Your task to perform on an android device: Open the phone app and click the voicemail tab. Image 0: 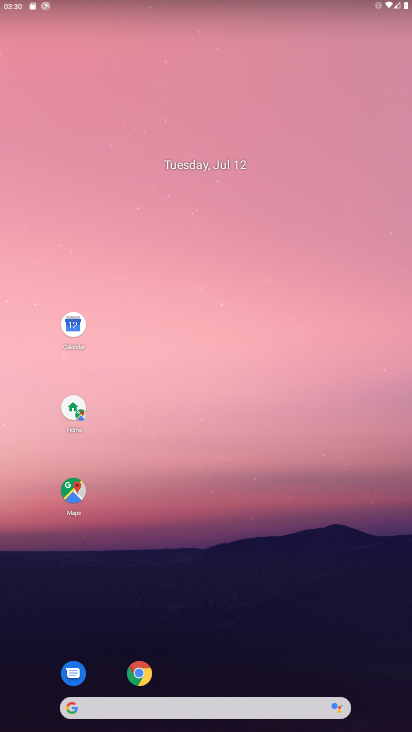
Step 0: drag from (225, 653) to (64, 345)
Your task to perform on an android device: Open the phone app and click the voicemail tab. Image 1: 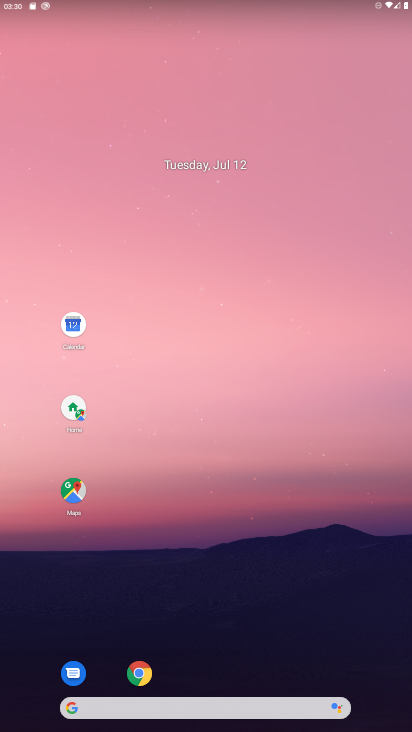
Step 1: drag from (167, 587) to (232, 220)
Your task to perform on an android device: Open the phone app and click the voicemail tab. Image 2: 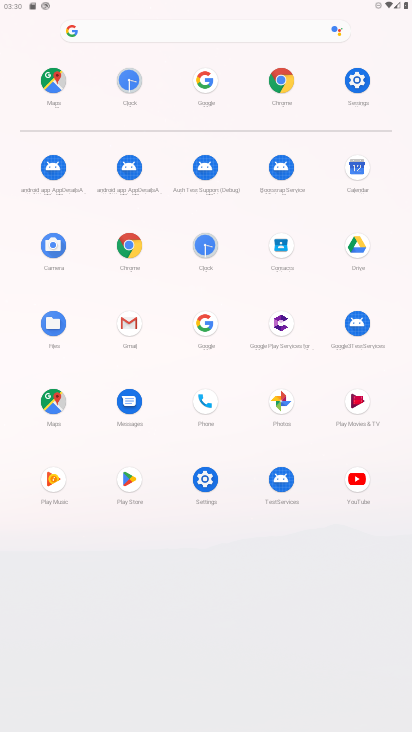
Step 2: click (203, 401)
Your task to perform on an android device: Open the phone app and click the voicemail tab. Image 3: 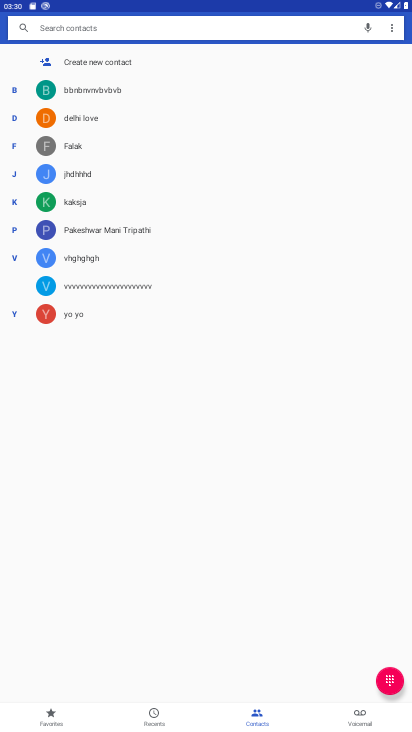
Step 3: click (365, 711)
Your task to perform on an android device: Open the phone app and click the voicemail tab. Image 4: 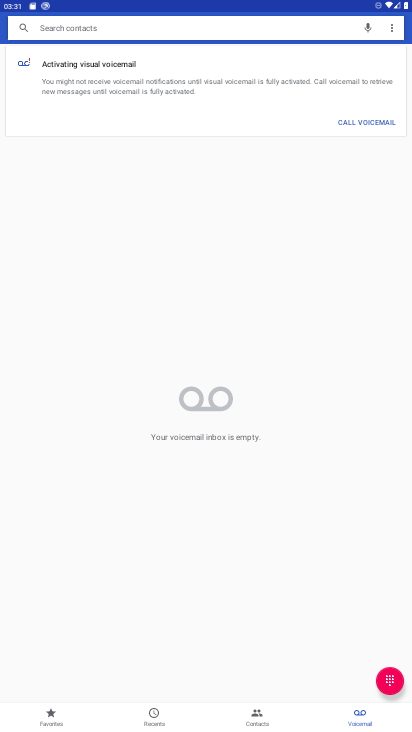
Step 4: click (355, 715)
Your task to perform on an android device: Open the phone app and click the voicemail tab. Image 5: 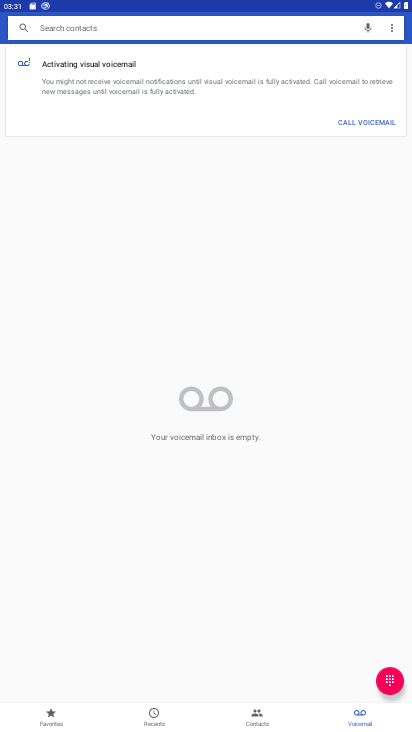
Step 5: task complete